Your task to perform on an android device: toggle data saver in the chrome app Image 0: 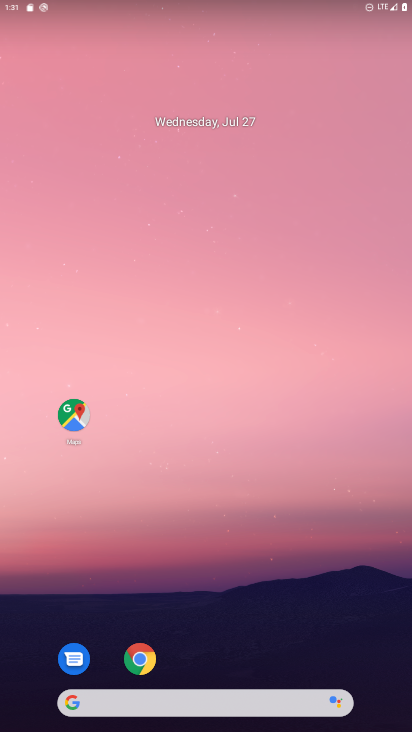
Step 0: click (148, 669)
Your task to perform on an android device: toggle data saver in the chrome app Image 1: 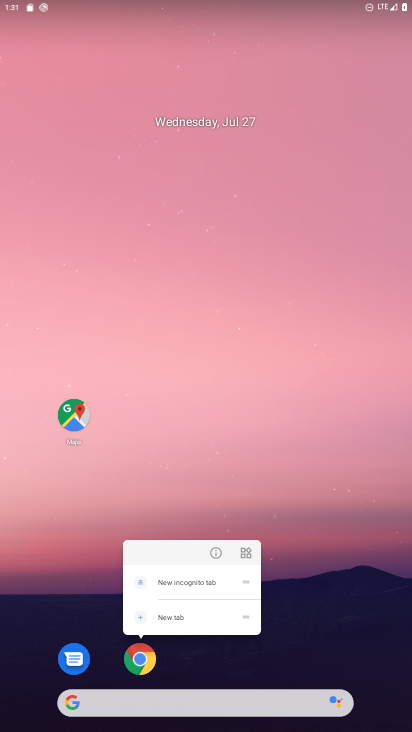
Step 1: click (142, 658)
Your task to perform on an android device: toggle data saver in the chrome app Image 2: 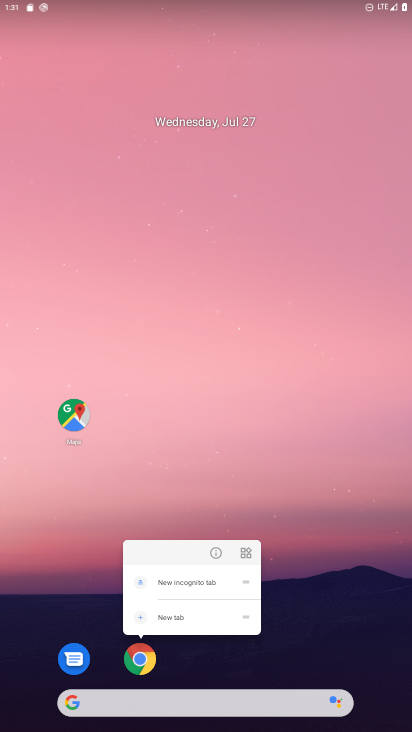
Step 2: click (139, 655)
Your task to perform on an android device: toggle data saver in the chrome app Image 3: 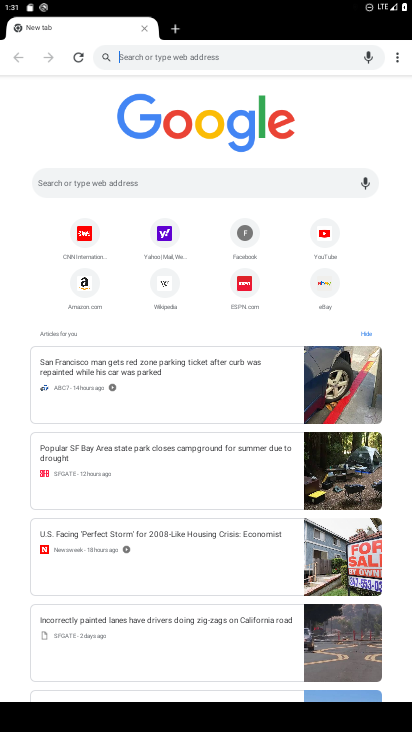
Step 3: click (399, 58)
Your task to perform on an android device: toggle data saver in the chrome app Image 4: 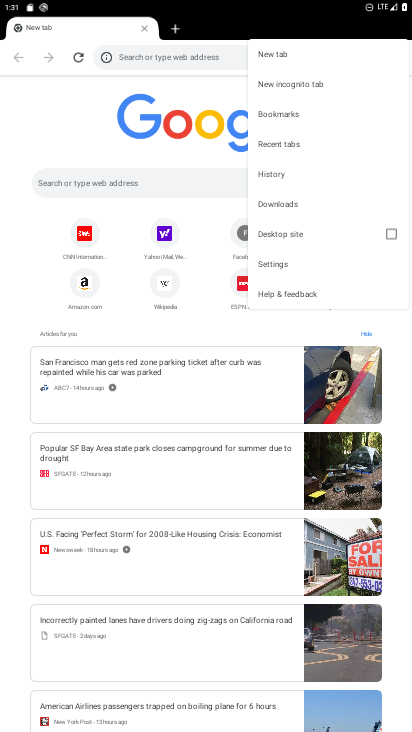
Step 4: click (294, 261)
Your task to perform on an android device: toggle data saver in the chrome app Image 5: 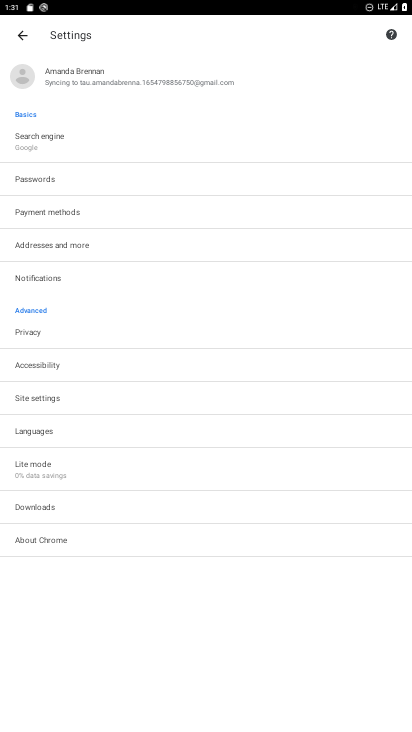
Step 5: click (70, 404)
Your task to perform on an android device: toggle data saver in the chrome app Image 6: 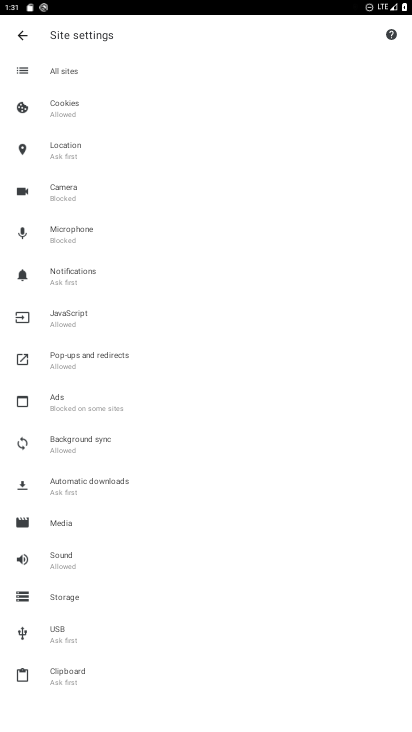
Step 6: click (18, 35)
Your task to perform on an android device: toggle data saver in the chrome app Image 7: 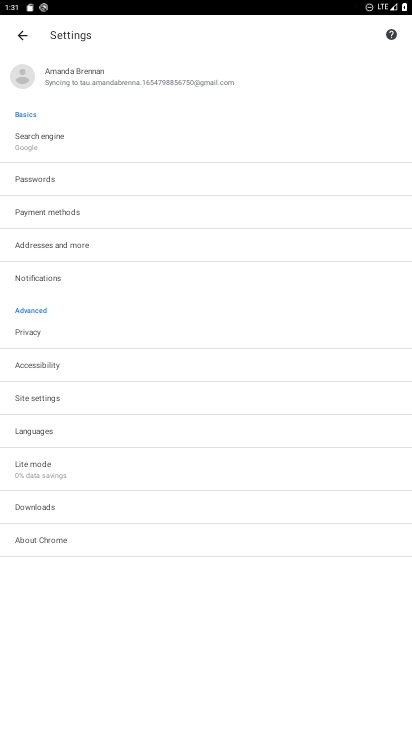
Step 7: click (38, 473)
Your task to perform on an android device: toggle data saver in the chrome app Image 8: 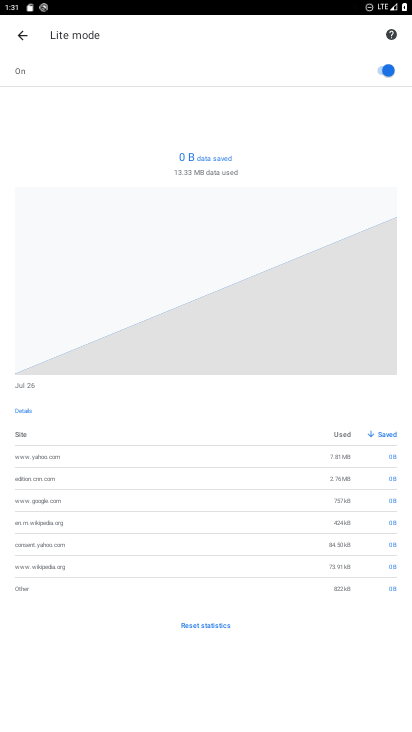
Step 8: click (379, 75)
Your task to perform on an android device: toggle data saver in the chrome app Image 9: 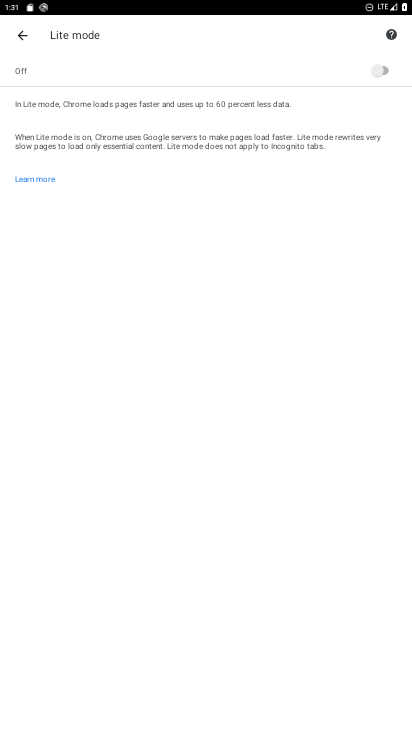
Step 9: click (179, 464)
Your task to perform on an android device: toggle data saver in the chrome app Image 10: 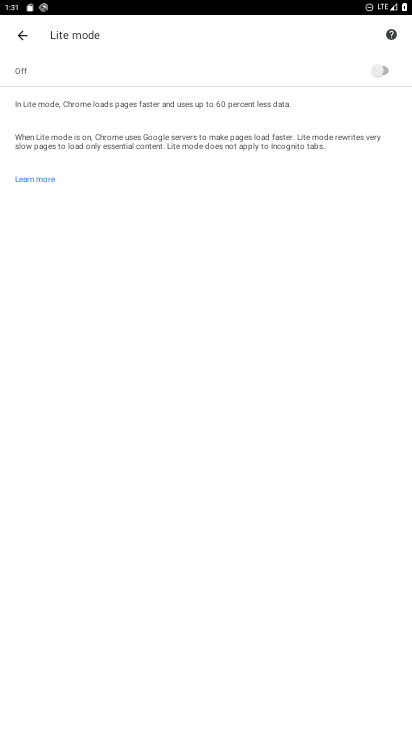
Step 10: click (192, 396)
Your task to perform on an android device: toggle data saver in the chrome app Image 11: 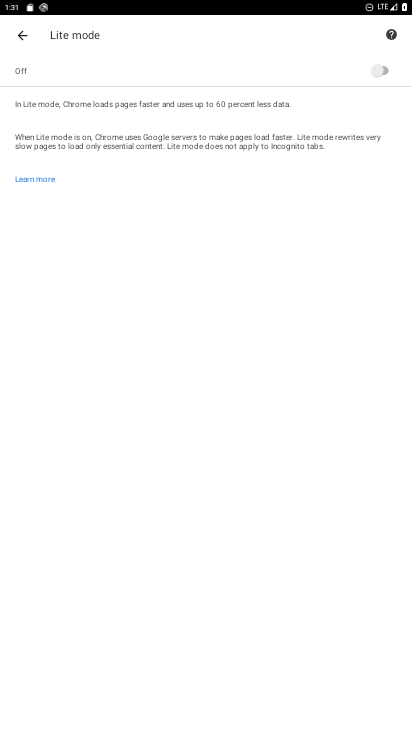
Step 11: click (251, 585)
Your task to perform on an android device: toggle data saver in the chrome app Image 12: 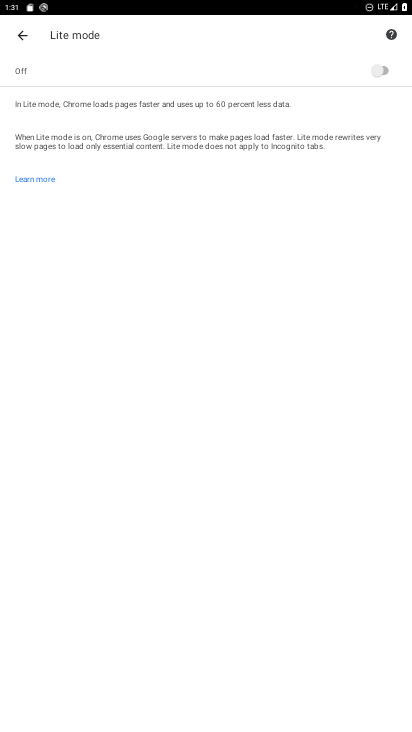
Step 12: task complete